Your task to perform on an android device: What's the weather today? Image 0: 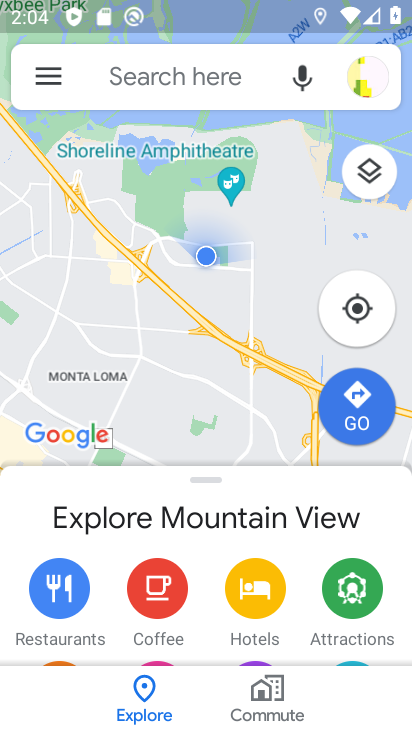
Step 0: press home button
Your task to perform on an android device: What's the weather today? Image 1: 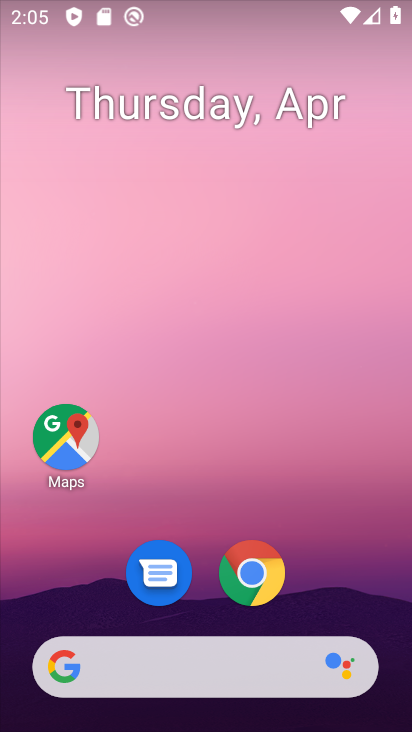
Step 1: drag from (340, 605) to (253, 126)
Your task to perform on an android device: What's the weather today? Image 2: 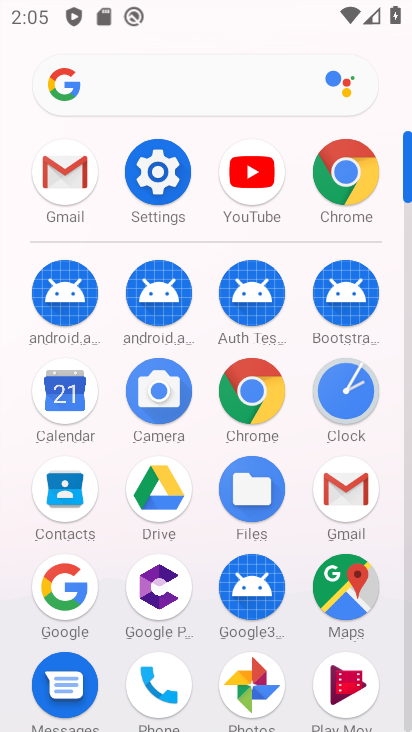
Step 2: click (67, 595)
Your task to perform on an android device: What's the weather today? Image 3: 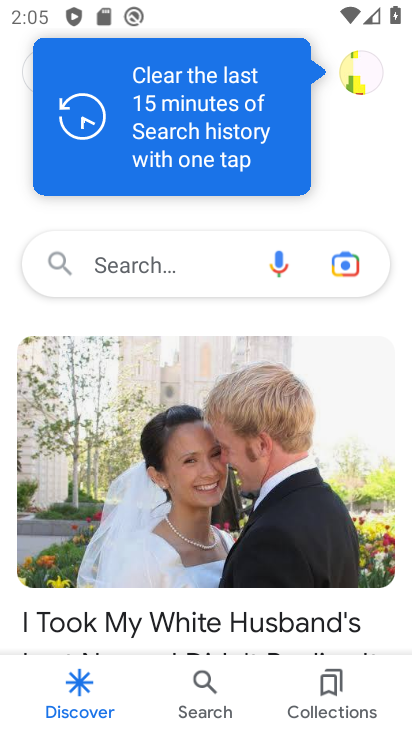
Step 3: click (175, 262)
Your task to perform on an android device: What's the weather today? Image 4: 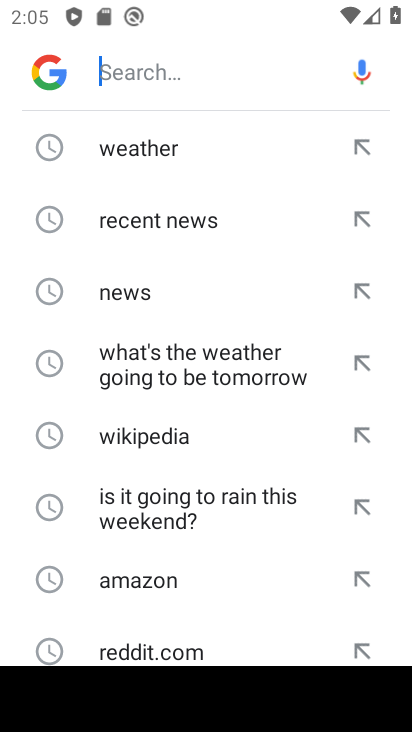
Step 4: click (146, 162)
Your task to perform on an android device: What's the weather today? Image 5: 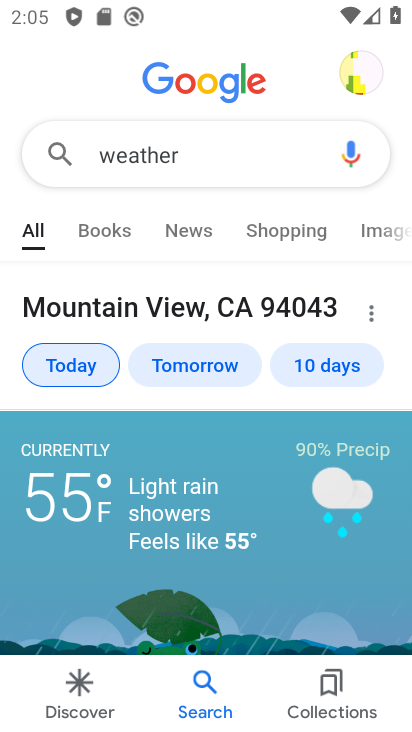
Step 5: task complete